Your task to perform on an android device: Install the Pandora app Image 0: 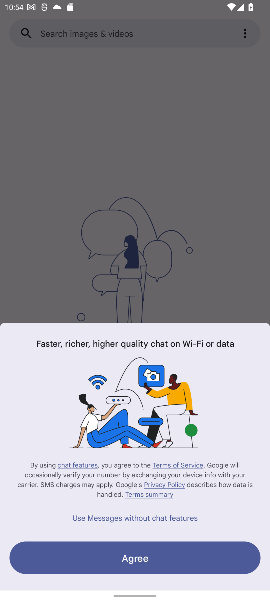
Step 0: press home button
Your task to perform on an android device: Install the Pandora app Image 1: 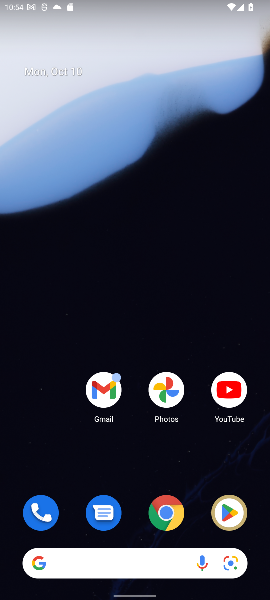
Step 1: drag from (126, 472) to (157, 6)
Your task to perform on an android device: Install the Pandora app Image 2: 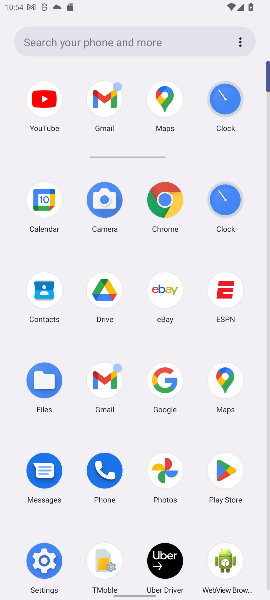
Step 2: click (166, 385)
Your task to perform on an android device: Install the Pandora app Image 3: 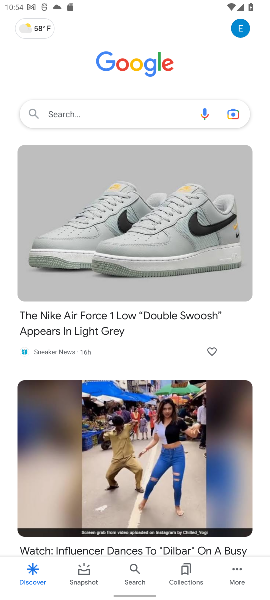
Step 3: click (113, 104)
Your task to perform on an android device: Install the Pandora app Image 4: 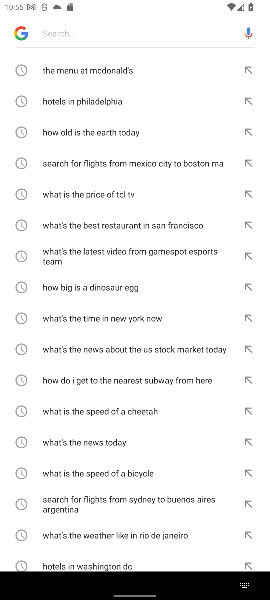
Step 4: type "Pandora app"
Your task to perform on an android device: Install the Pandora app Image 5: 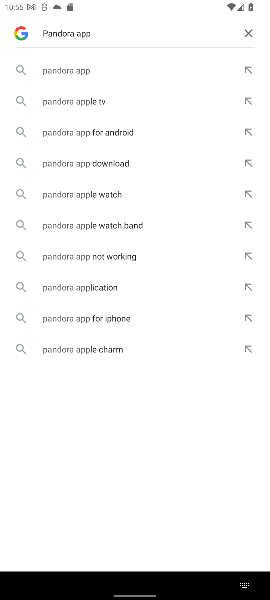
Step 5: click (82, 66)
Your task to perform on an android device: Install the Pandora app Image 6: 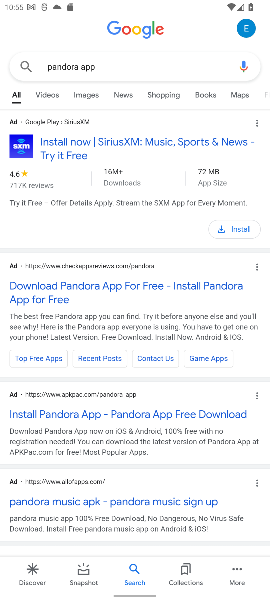
Step 6: task complete